Your task to perform on an android device: open chrome privacy settings Image 0: 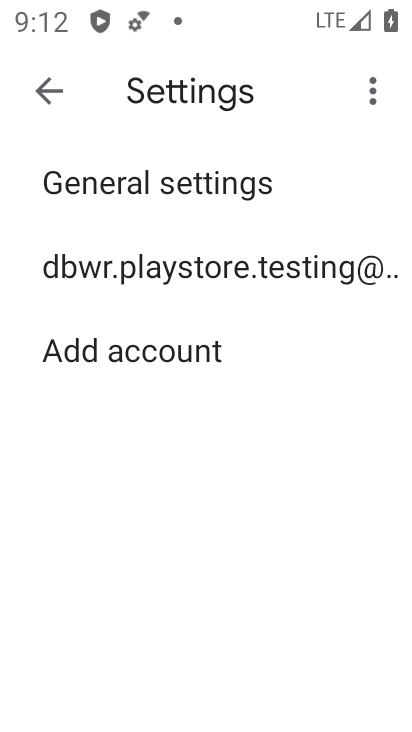
Step 0: press home button
Your task to perform on an android device: open chrome privacy settings Image 1: 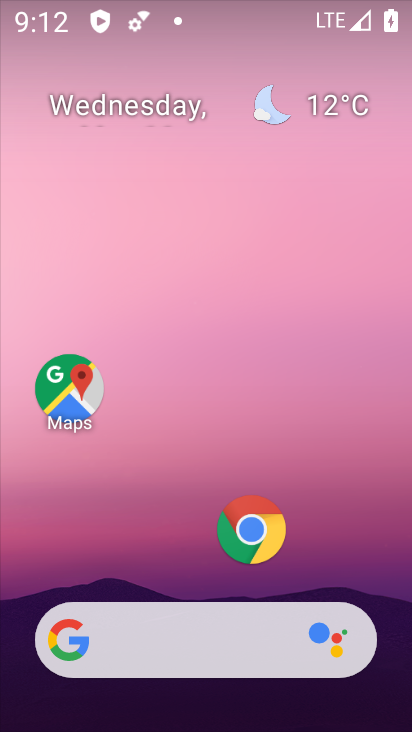
Step 1: drag from (218, 601) to (223, 234)
Your task to perform on an android device: open chrome privacy settings Image 2: 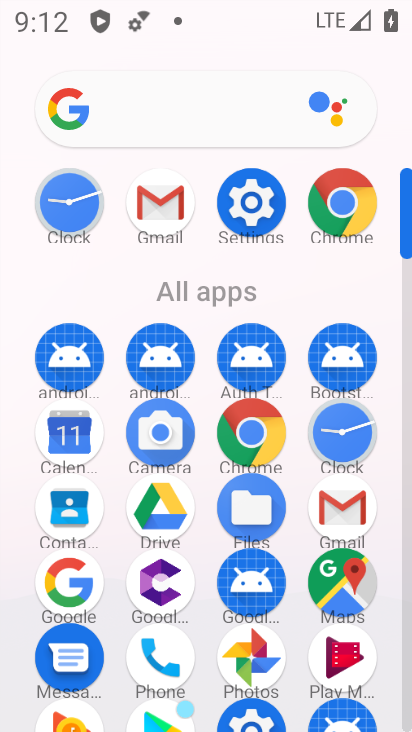
Step 2: click (353, 203)
Your task to perform on an android device: open chrome privacy settings Image 3: 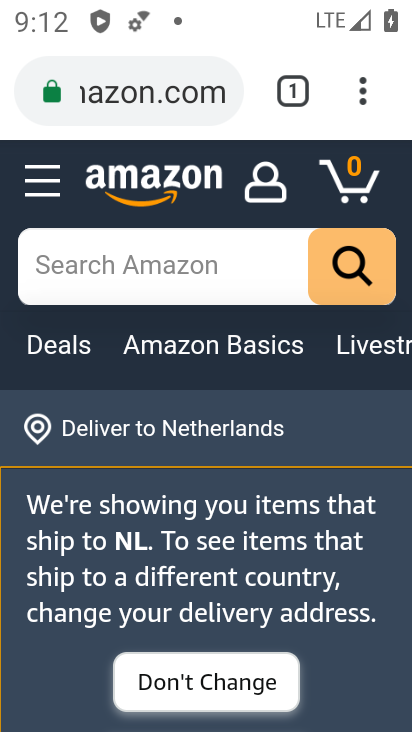
Step 3: click (358, 97)
Your task to perform on an android device: open chrome privacy settings Image 4: 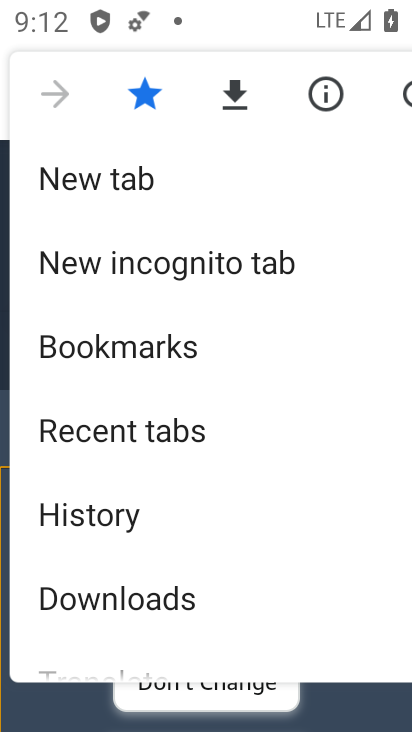
Step 4: drag from (164, 552) to (166, 273)
Your task to perform on an android device: open chrome privacy settings Image 5: 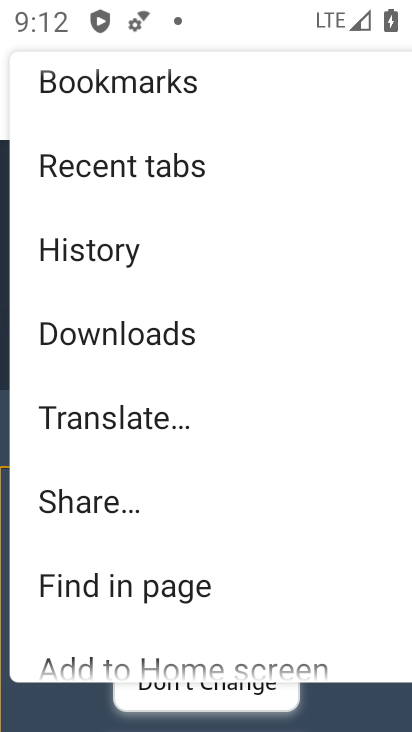
Step 5: drag from (156, 612) to (182, 332)
Your task to perform on an android device: open chrome privacy settings Image 6: 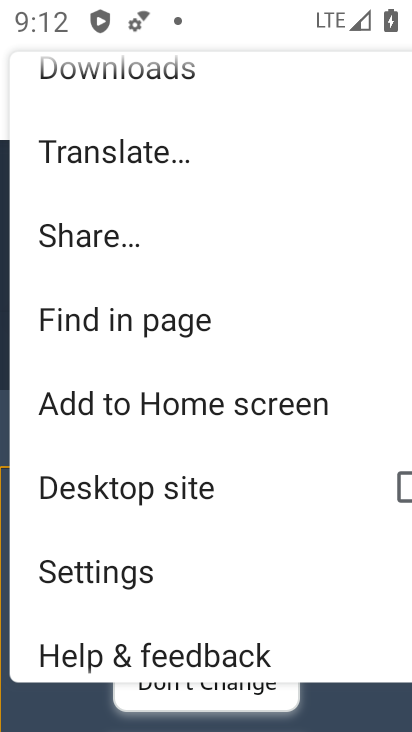
Step 6: click (124, 574)
Your task to perform on an android device: open chrome privacy settings Image 7: 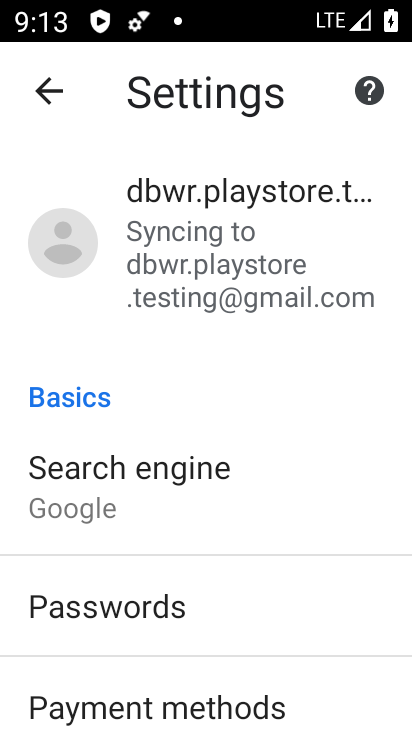
Step 7: drag from (187, 558) to (191, 333)
Your task to perform on an android device: open chrome privacy settings Image 8: 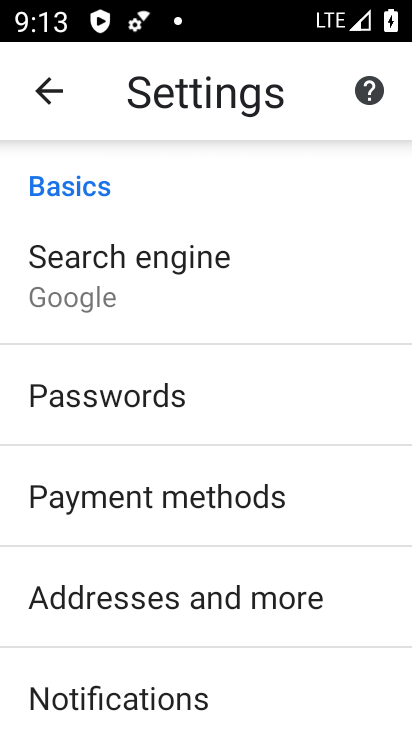
Step 8: drag from (155, 544) to (172, 308)
Your task to perform on an android device: open chrome privacy settings Image 9: 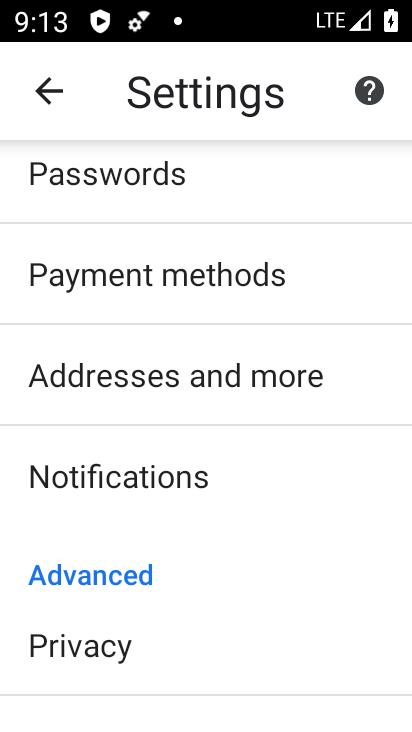
Step 9: click (108, 639)
Your task to perform on an android device: open chrome privacy settings Image 10: 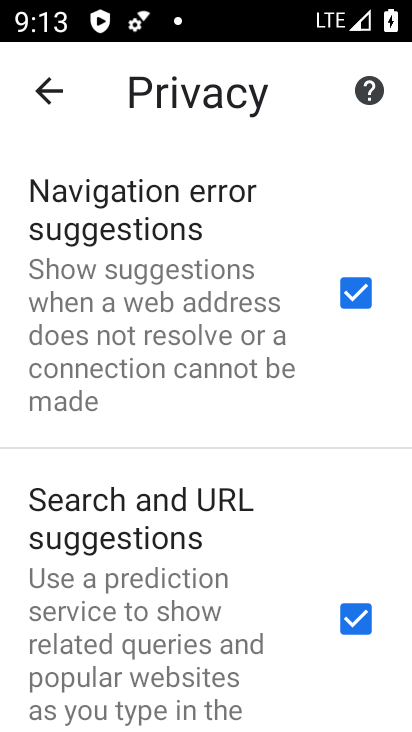
Step 10: task complete